Your task to perform on an android device: open device folders in google photos Image 0: 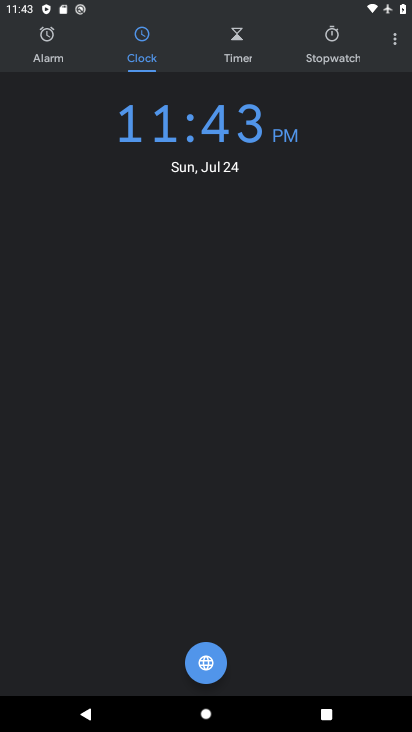
Step 0: press home button
Your task to perform on an android device: open device folders in google photos Image 1: 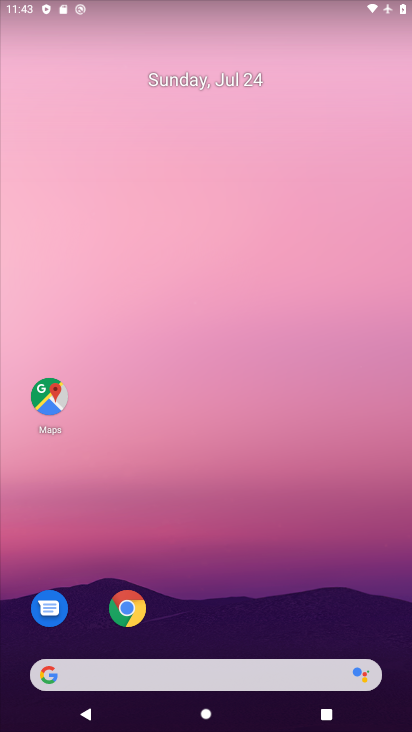
Step 1: drag from (149, 645) to (309, 40)
Your task to perform on an android device: open device folders in google photos Image 2: 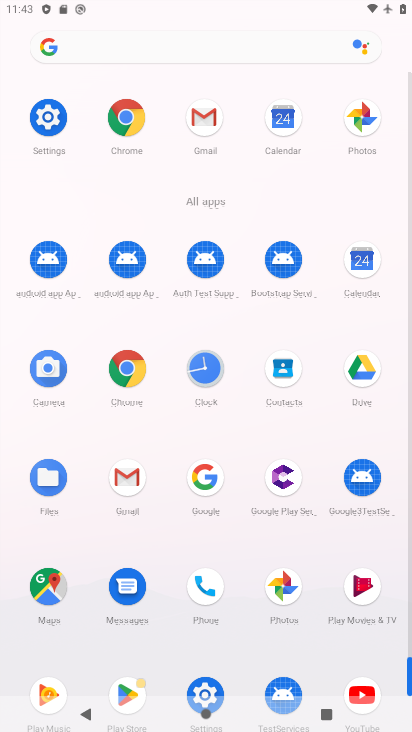
Step 2: click (286, 601)
Your task to perform on an android device: open device folders in google photos Image 3: 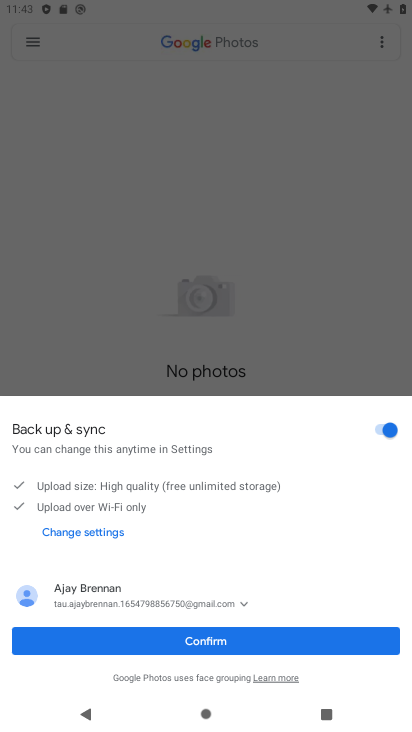
Step 3: click (328, 640)
Your task to perform on an android device: open device folders in google photos Image 4: 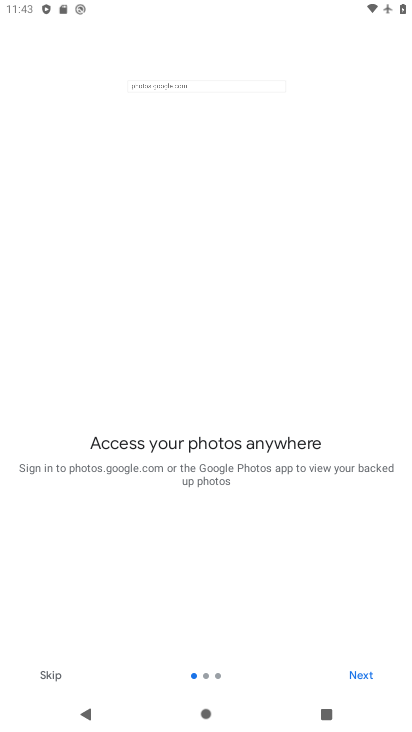
Step 4: click (52, 680)
Your task to perform on an android device: open device folders in google photos Image 5: 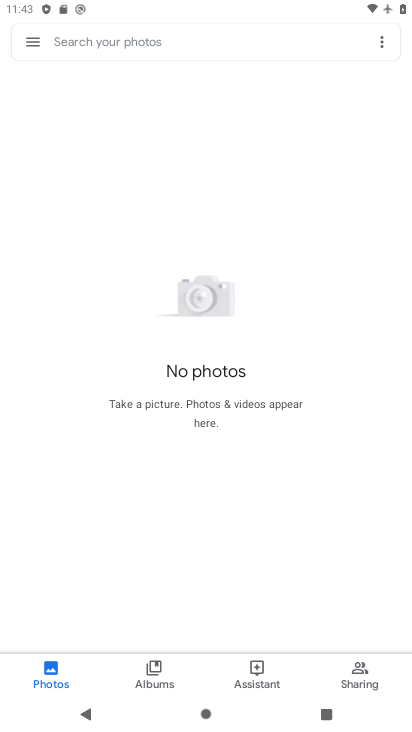
Step 5: click (29, 34)
Your task to perform on an android device: open device folders in google photos Image 6: 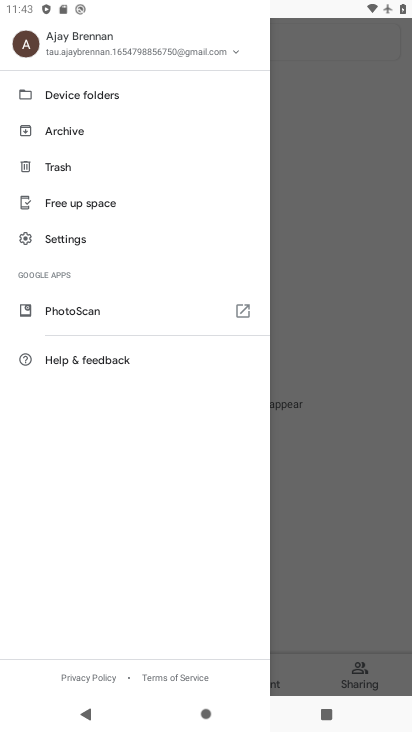
Step 6: click (121, 92)
Your task to perform on an android device: open device folders in google photos Image 7: 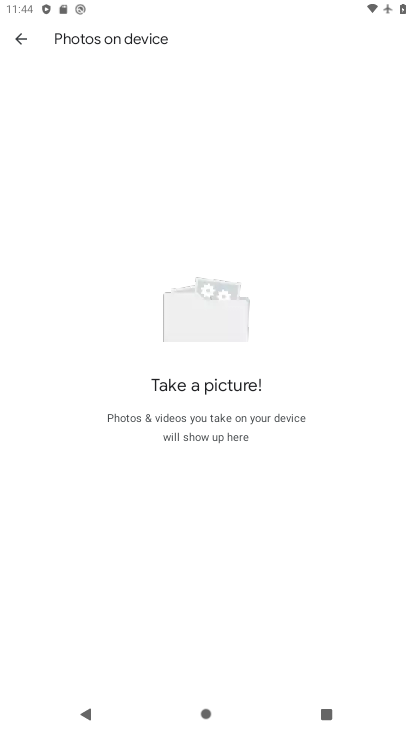
Step 7: task complete